Your task to perform on an android device: change notifications settings Image 0: 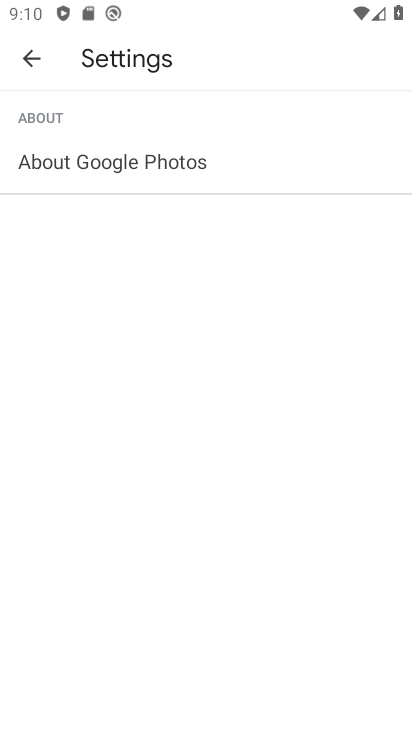
Step 0: press home button
Your task to perform on an android device: change notifications settings Image 1: 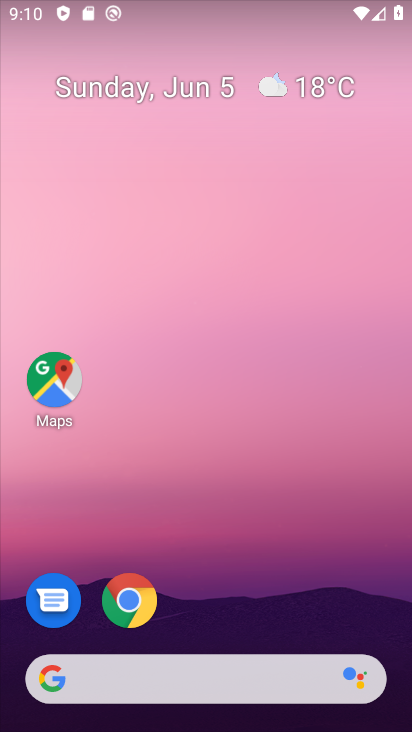
Step 1: drag from (284, 485) to (216, 5)
Your task to perform on an android device: change notifications settings Image 2: 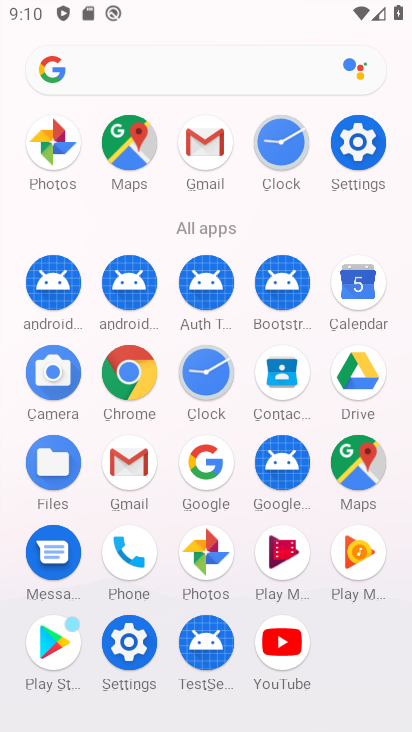
Step 2: click (361, 124)
Your task to perform on an android device: change notifications settings Image 3: 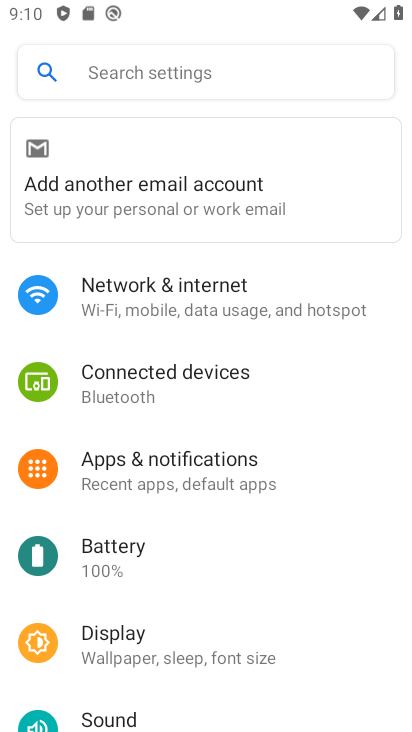
Step 3: click (245, 466)
Your task to perform on an android device: change notifications settings Image 4: 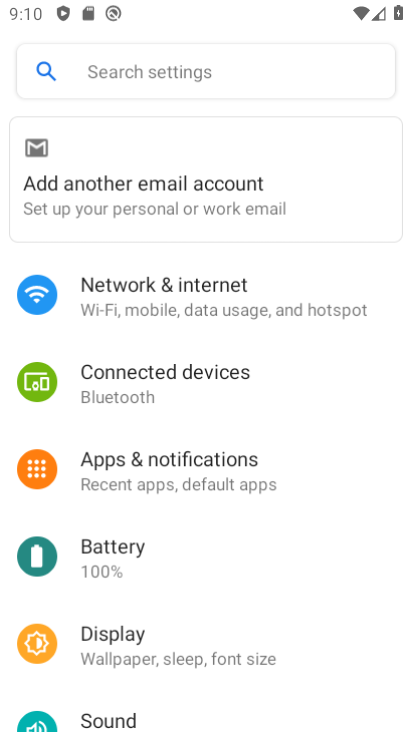
Step 4: click (213, 461)
Your task to perform on an android device: change notifications settings Image 5: 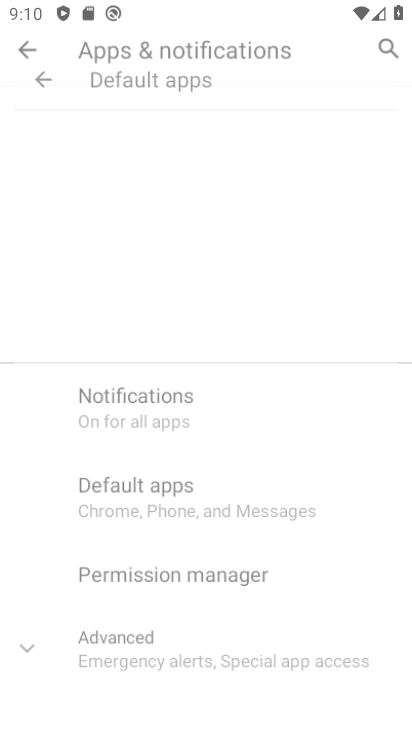
Step 5: click (195, 395)
Your task to perform on an android device: change notifications settings Image 6: 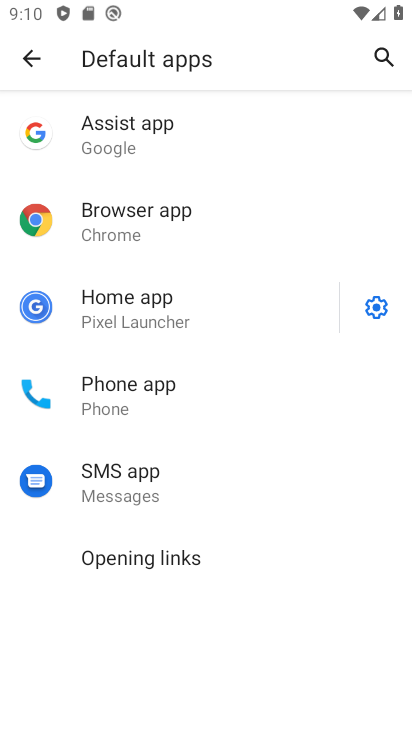
Step 6: click (29, 61)
Your task to perform on an android device: change notifications settings Image 7: 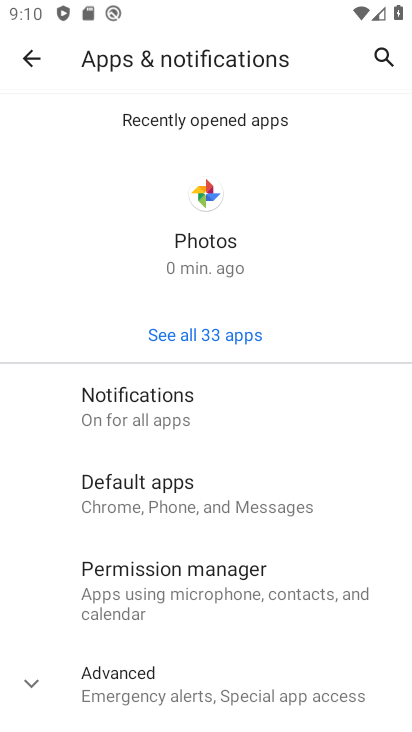
Step 7: click (186, 386)
Your task to perform on an android device: change notifications settings Image 8: 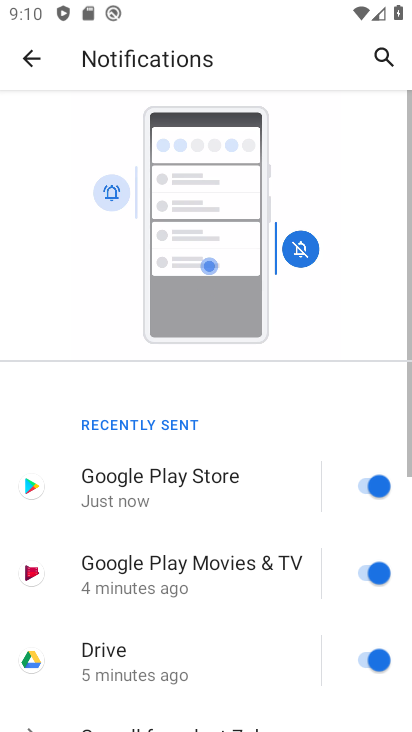
Step 8: drag from (196, 552) to (232, 93)
Your task to perform on an android device: change notifications settings Image 9: 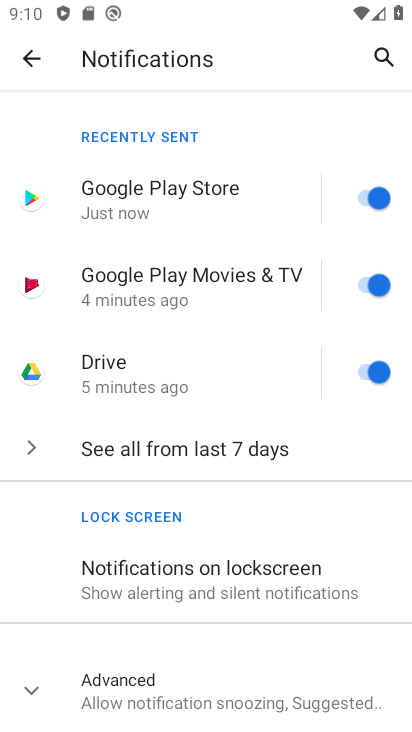
Step 9: drag from (287, 448) to (295, 345)
Your task to perform on an android device: change notifications settings Image 10: 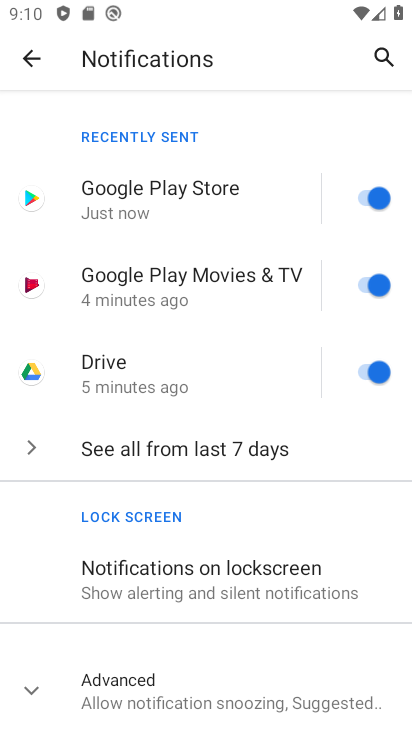
Step 10: click (152, 664)
Your task to perform on an android device: change notifications settings Image 11: 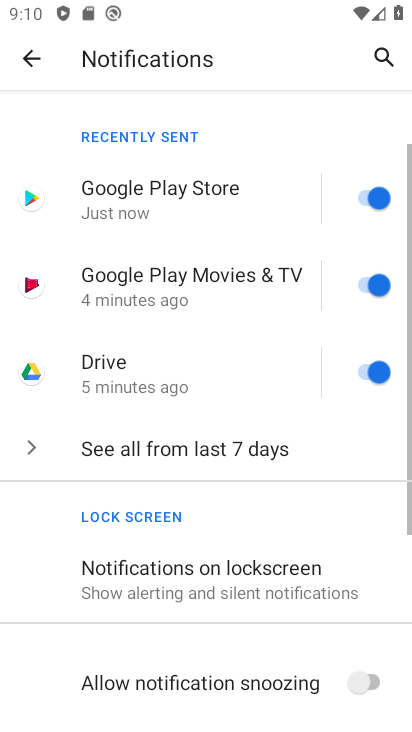
Step 11: drag from (232, 672) to (258, 298)
Your task to perform on an android device: change notifications settings Image 12: 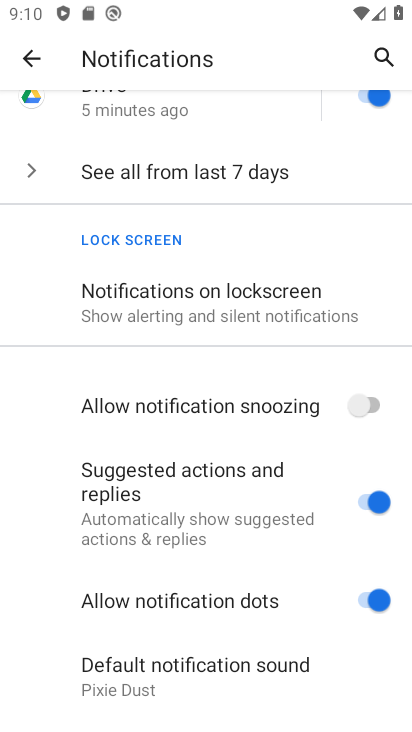
Step 12: click (364, 415)
Your task to perform on an android device: change notifications settings Image 13: 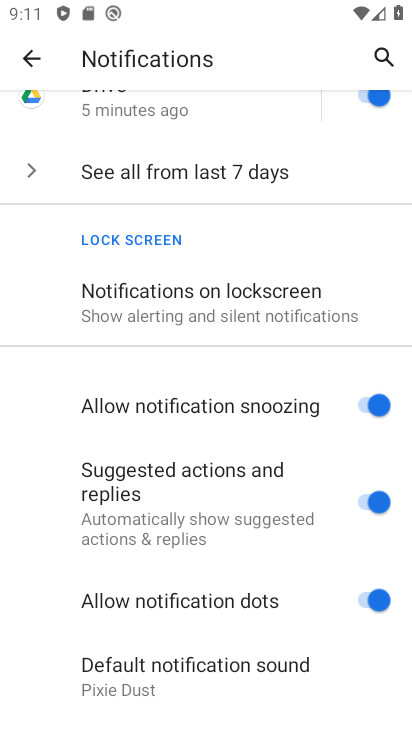
Step 13: task complete